Your task to perform on an android device: Empty the shopping cart on newegg. Add logitech g933 to the cart on newegg, then select checkout. Image 0: 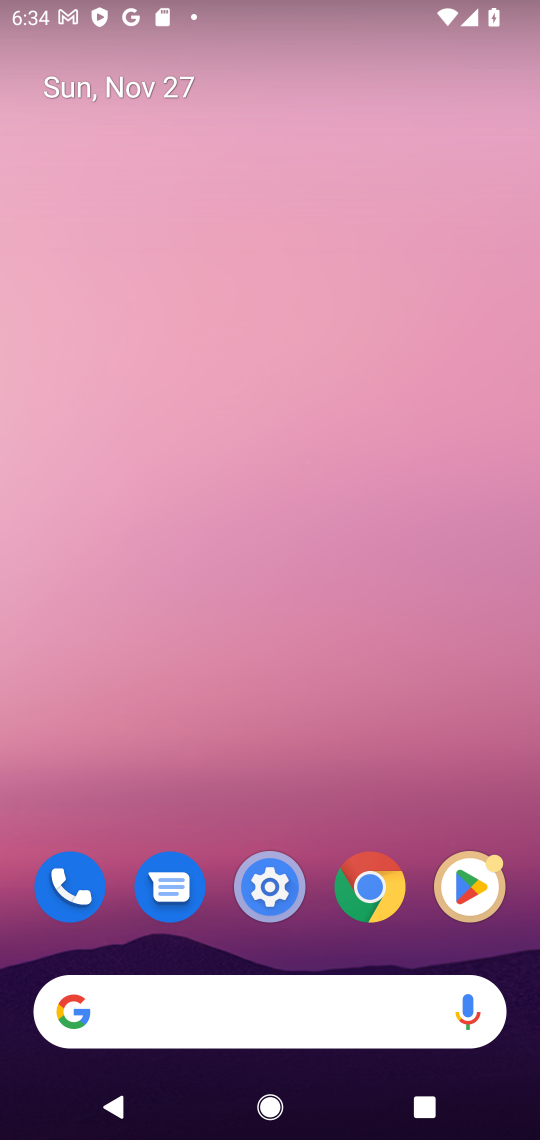
Step 0: click (170, 1031)
Your task to perform on an android device: Empty the shopping cart on newegg. Add logitech g933 to the cart on newegg, then select checkout. Image 1: 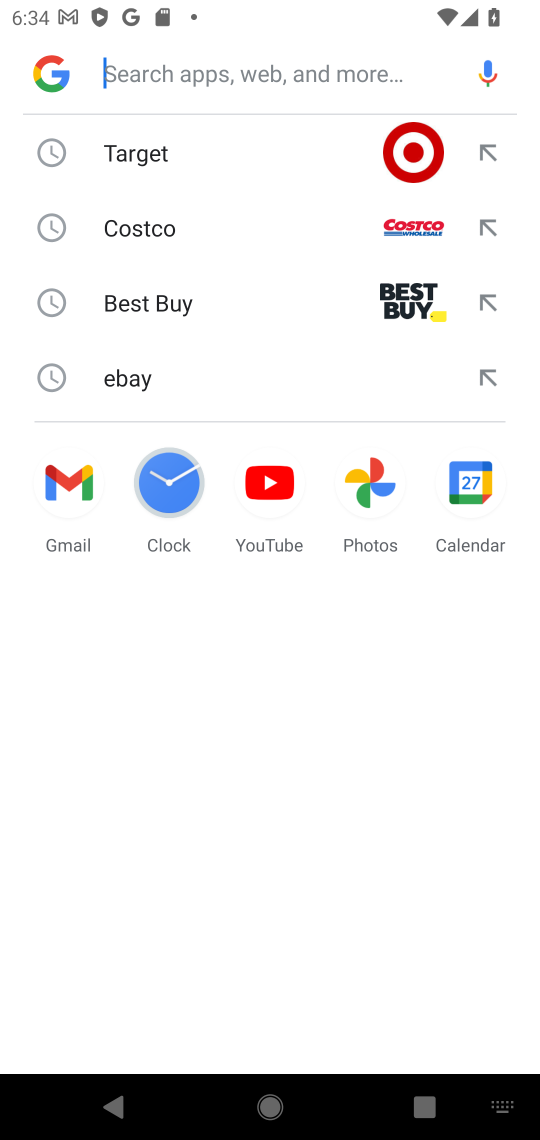
Step 1: type "newegg"
Your task to perform on an android device: Empty the shopping cart on newegg. Add logitech g933 to the cart on newegg, then select checkout. Image 2: 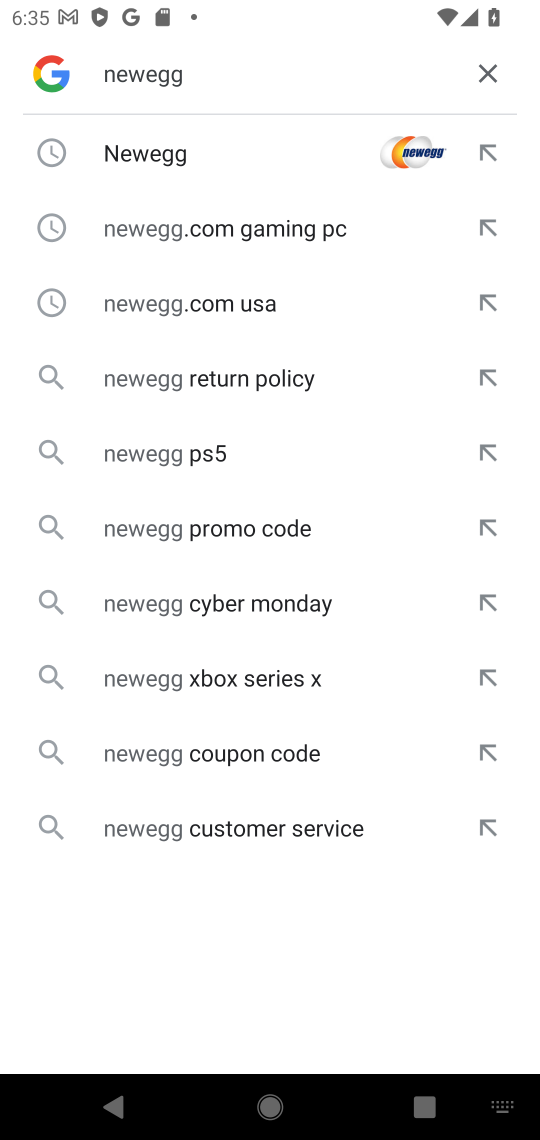
Step 2: click (191, 163)
Your task to perform on an android device: Empty the shopping cart on newegg. Add logitech g933 to the cart on newegg, then select checkout. Image 3: 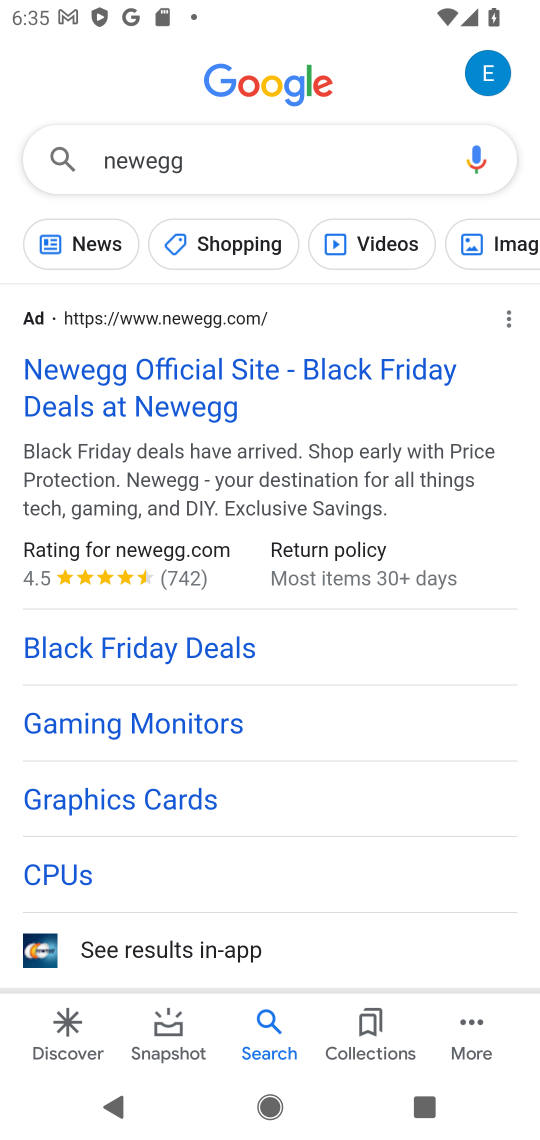
Step 3: click (176, 355)
Your task to perform on an android device: Empty the shopping cart on newegg. Add logitech g933 to the cart on newegg, then select checkout. Image 4: 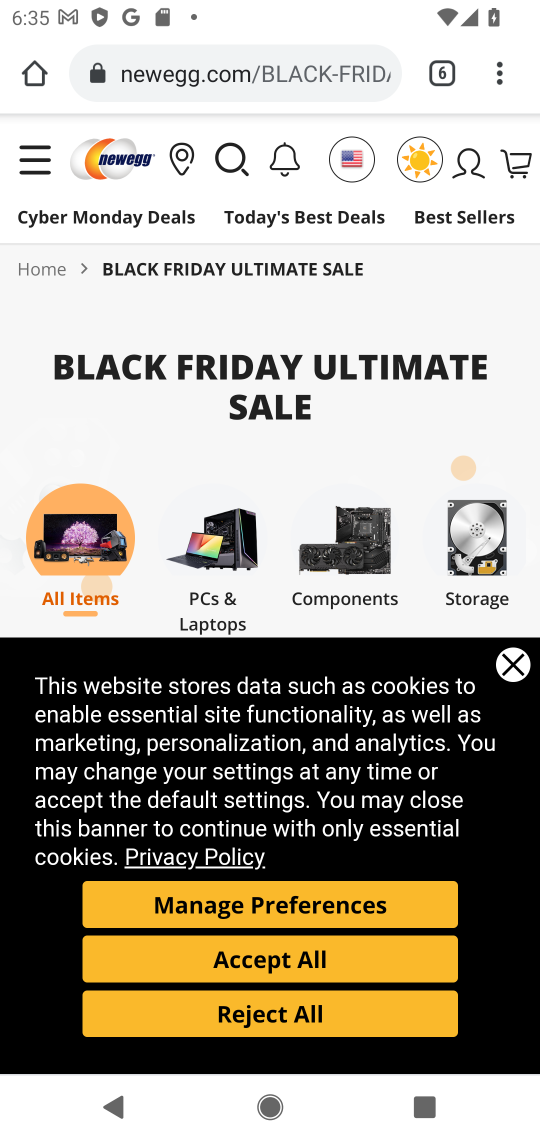
Step 4: click (246, 187)
Your task to perform on an android device: Empty the shopping cart on newegg. Add logitech g933 to the cart on newegg, then select checkout. Image 5: 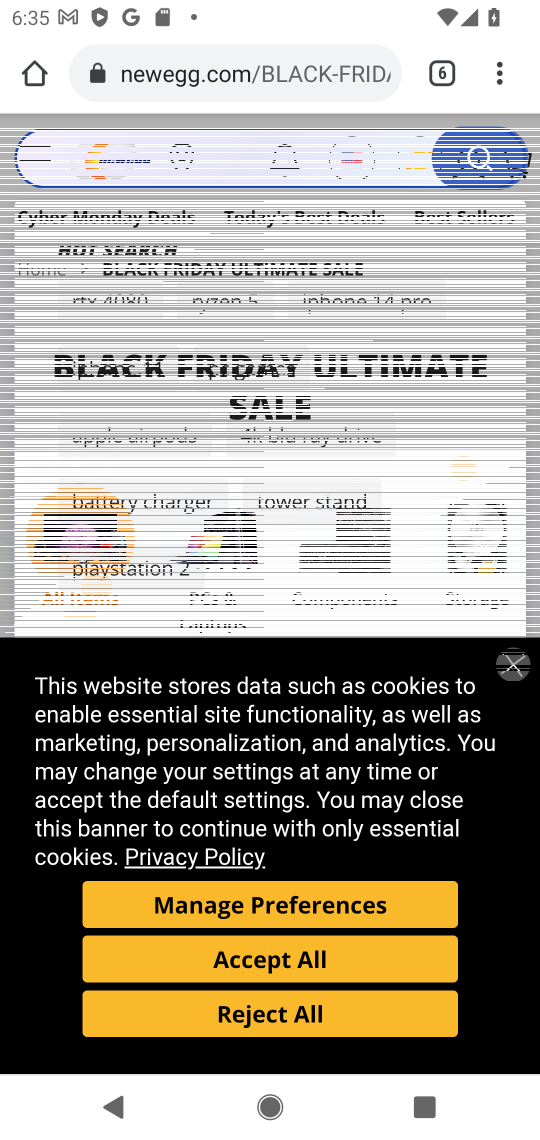
Step 5: click (247, 970)
Your task to perform on an android device: Empty the shopping cart on newegg. Add logitech g933 to the cart on newegg, then select checkout. Image 6: 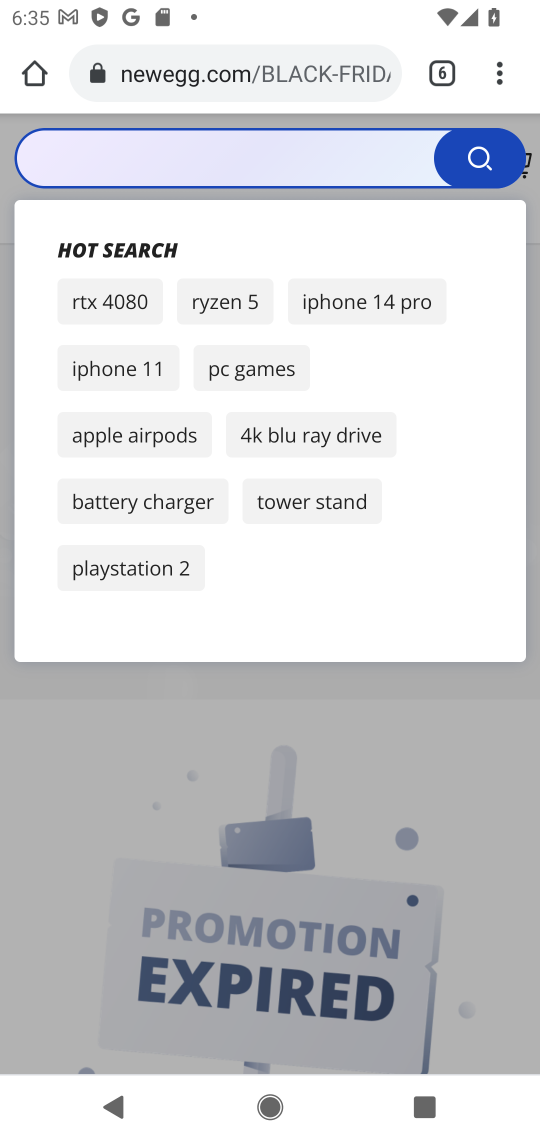
Step 6: click (269, 155)
Your task to perform on an android device: Empty the shopping cart on newegg. Add logitech g933 to the cart on newegg, then select checkout. Image 7: 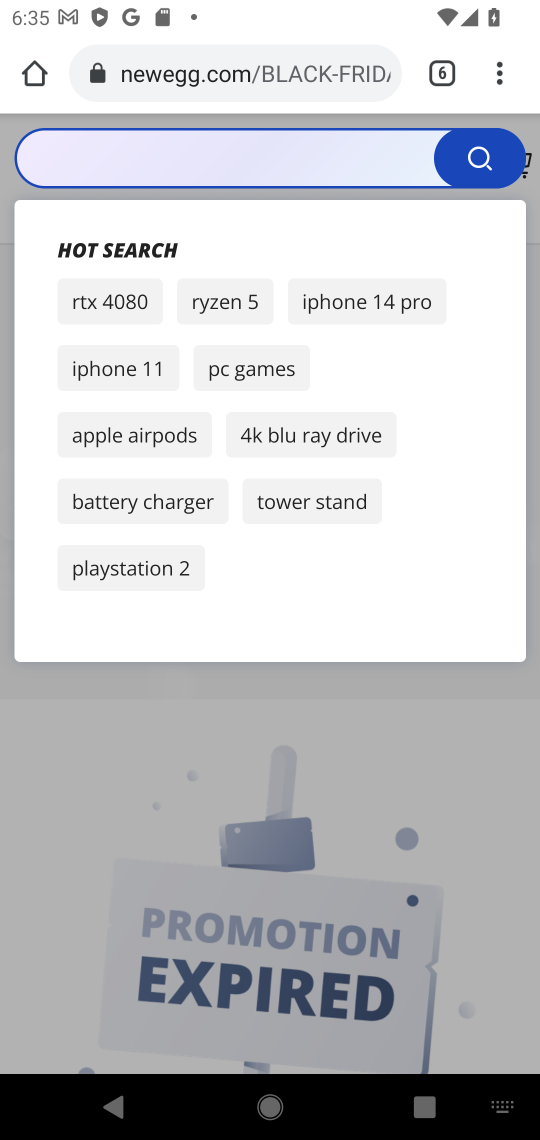
Step 7: type "logitech g933"
Your task to perform on an android device: Empty the shopping cart on newegg. Add logitech g933 to the cart on newegg, then select checkout. Image 8: 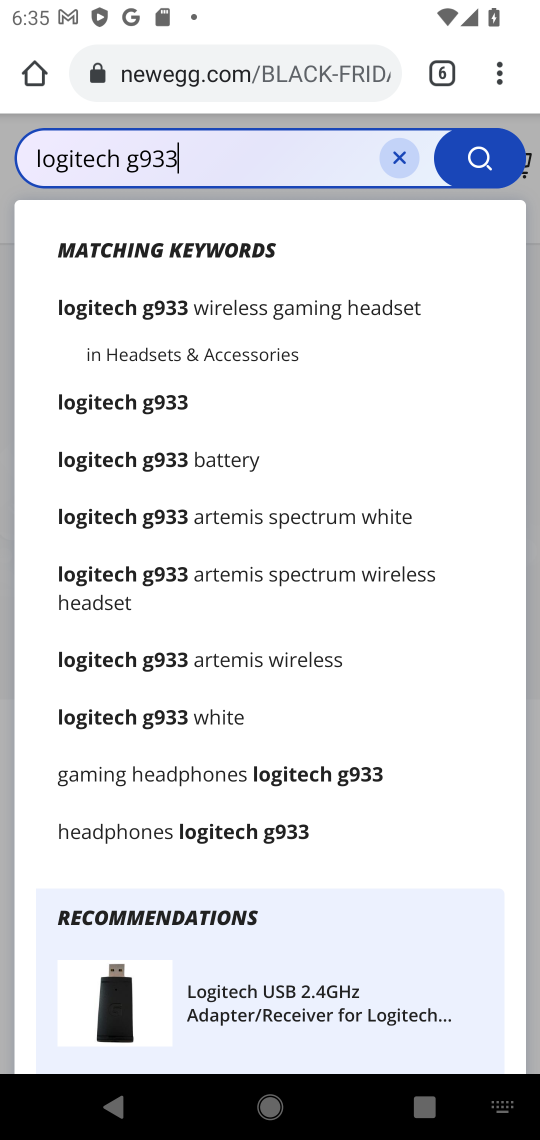
Step 8: click (493, 179)
Your task to perform on an android device: Empty the shopping cart on newegg. Add logitech g933 to the cart on newegg, then select checkout. Image 9: 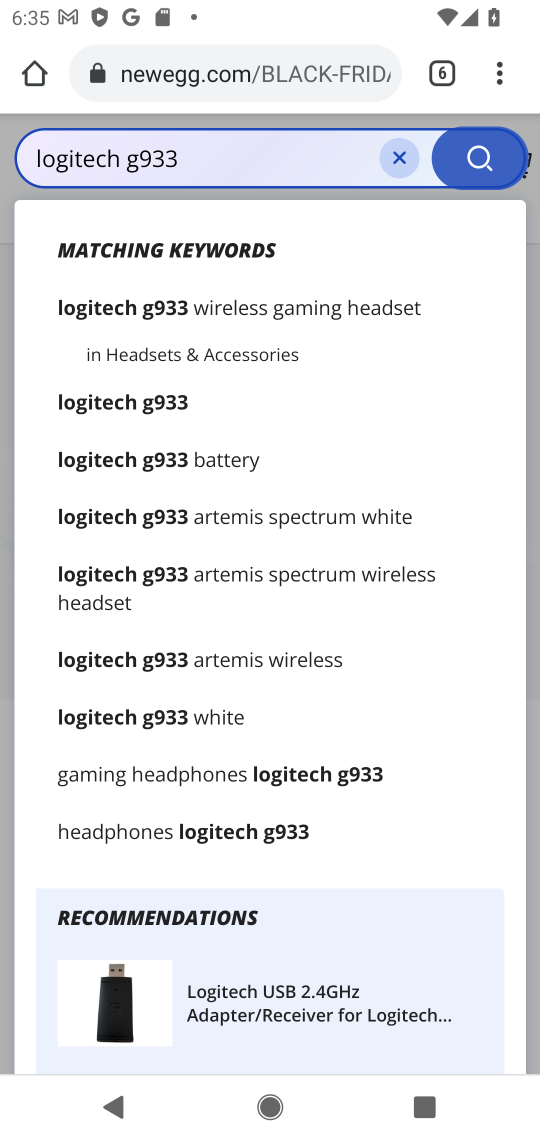
Step 9: click (415, 332)
Your task to perform on an android device: Empty the shopping cart on newegg. Add logitech g933 to the cart on newegg, then select checkout. Image 10: 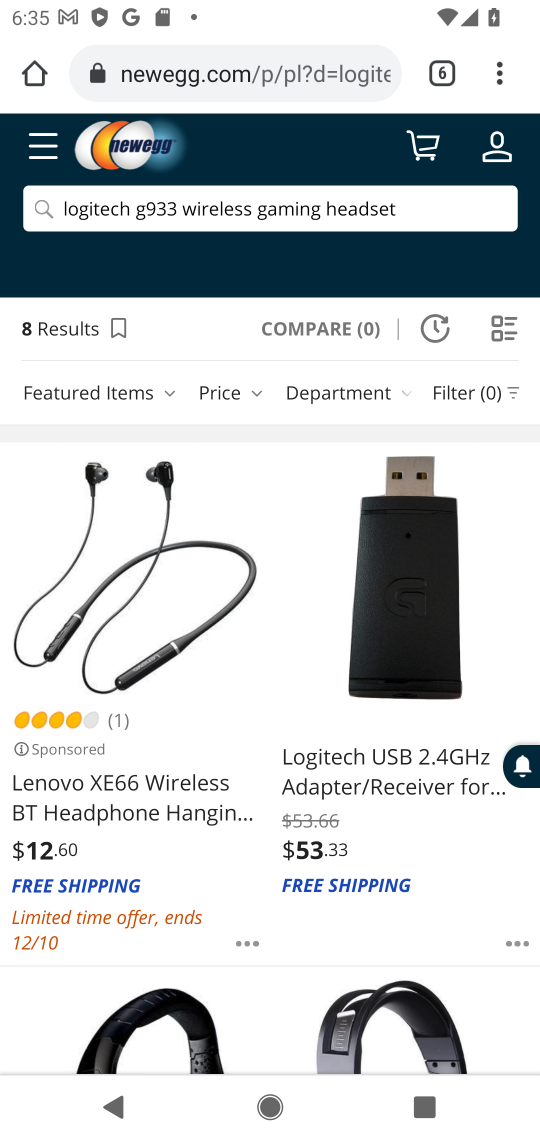
Step 10: drag from (188, 786) to (173, 606)
Your task to perform on an android device: Empty the shopping cart on newegg. Add logitech g933 to the cart on newegg, then select checkout. Image 11: 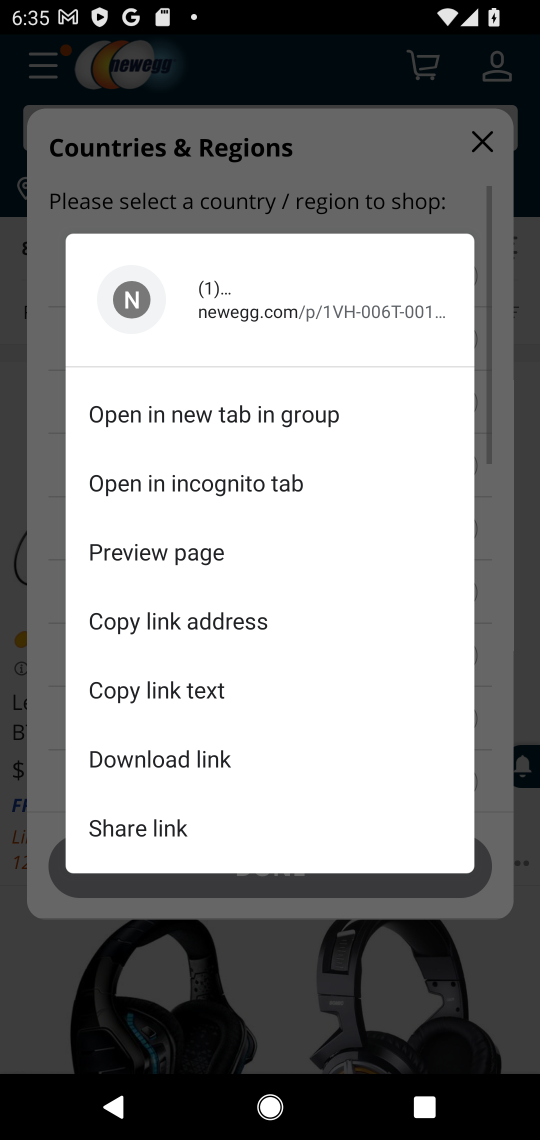
Step 11: click (349, 1000)
Your task to perform on an android device: Empty the shopping cart on newegg. Add logitech g933 to the cart on newegg, then select checkout. Image 12: 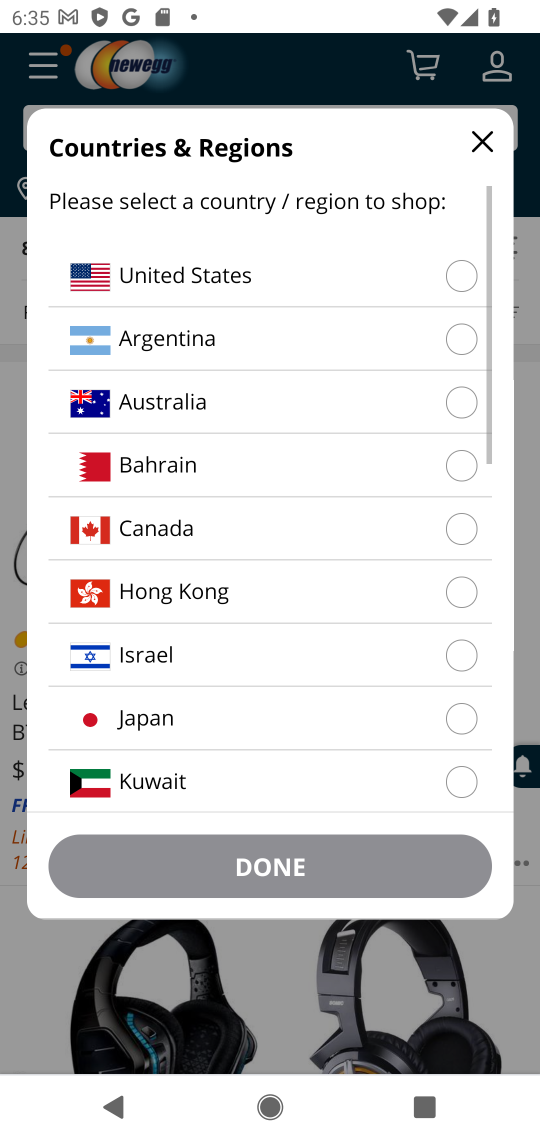
Step 12: click (278, 267)
Your task to perform on an android device: Empty the shopping cart on newegg. Add logitech g933 to the cart on newegg, then select checkout. Image 13: 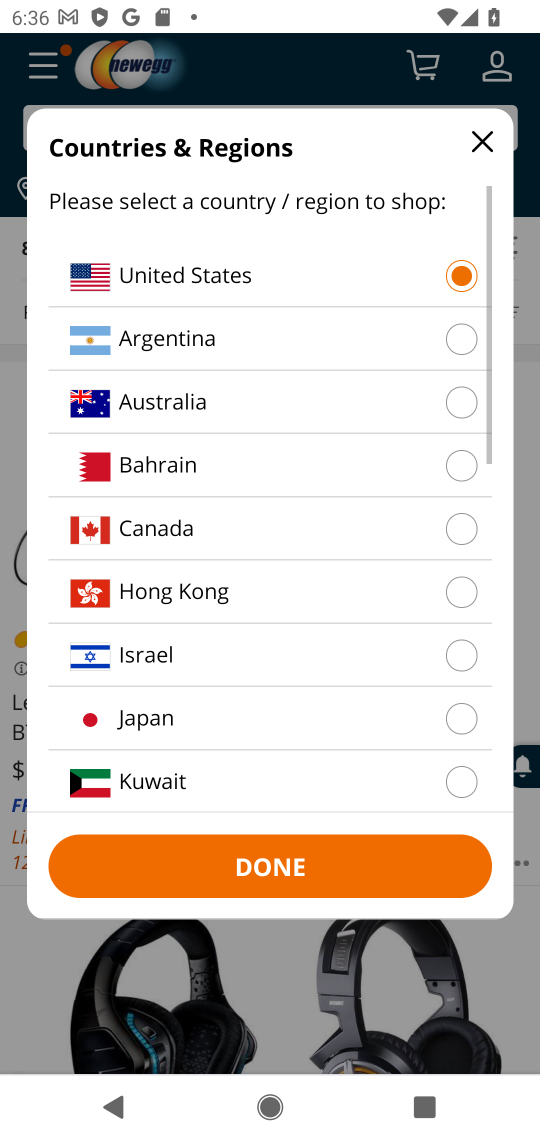
Step 13: click (347, 846)
Your task to perform on an android device: Empty the shopping cart on newegg. Add logitech g933 to the cart on newegg, then select checkout. Image 14: 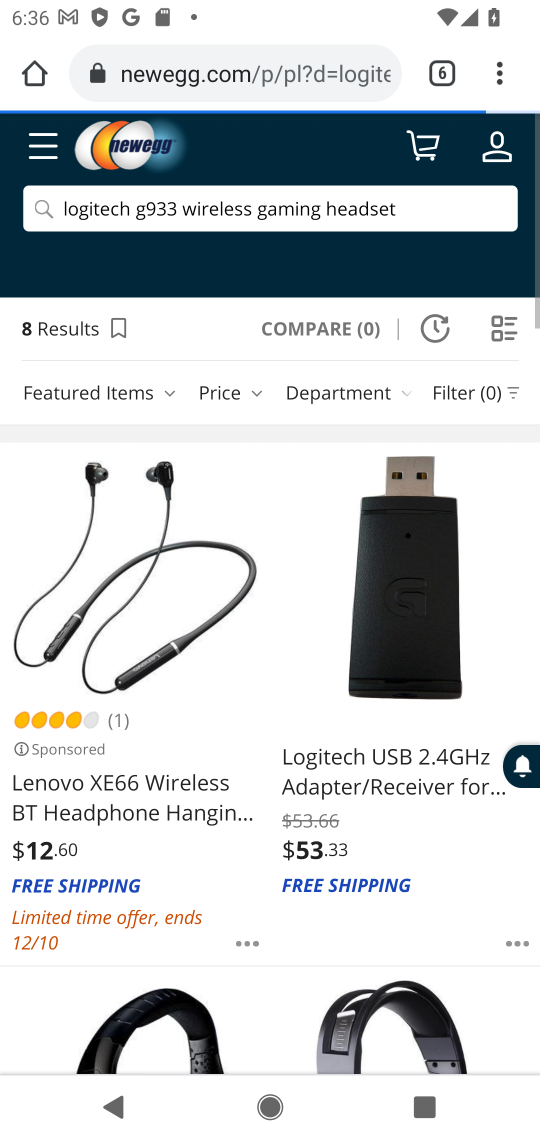
Step 14: click (147, 744)
Your task to perform on an android device: Empty the shopping cart on newegg. Add logitech g933 to the cart on newegg, then select checkout. Image 15: 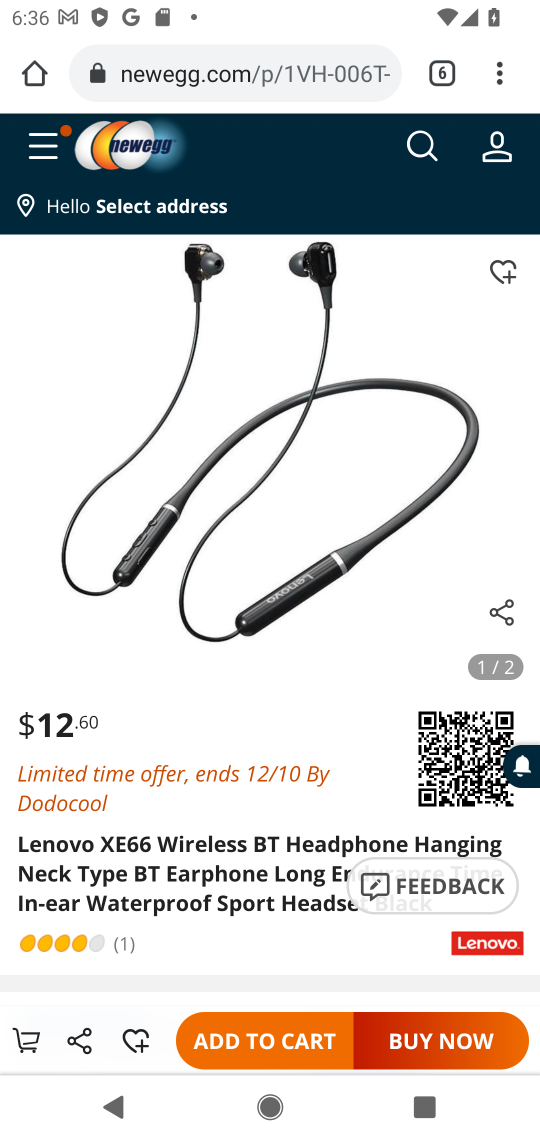
Step 15: click (295, 1041)
Your task to perform on an android device: Empty the shopping cart on newegg. Add logitech g933 to the cart on newegg, then select checkout. Image 16: 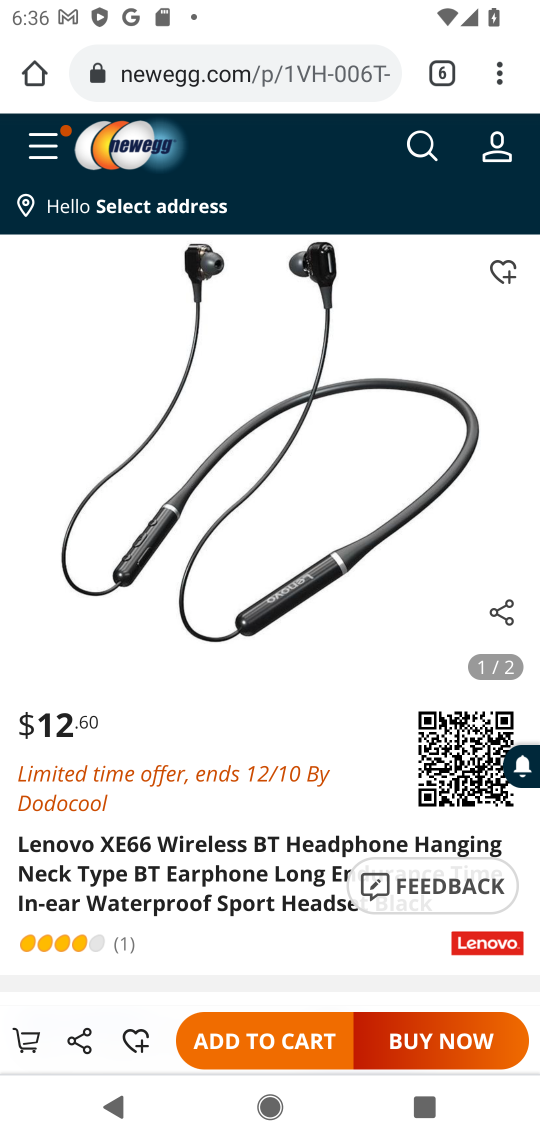
Step 16: task complete